Your task to perform on an android device: change your default location settings in chrome Image 0: 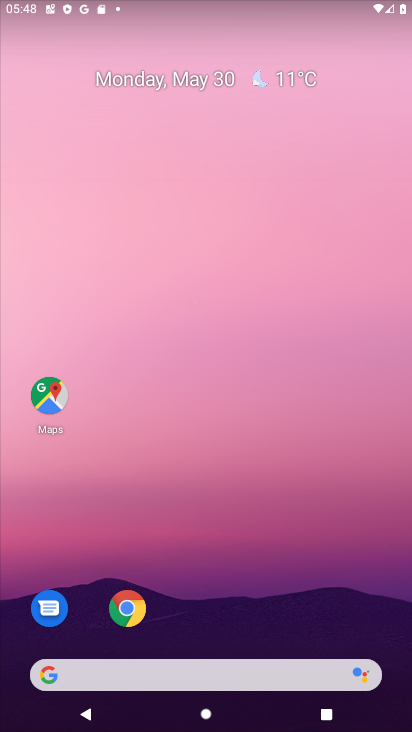
Step 0: click (136, 628)
Your task to perform on an android device: change your default location settings in chrome Image 1: 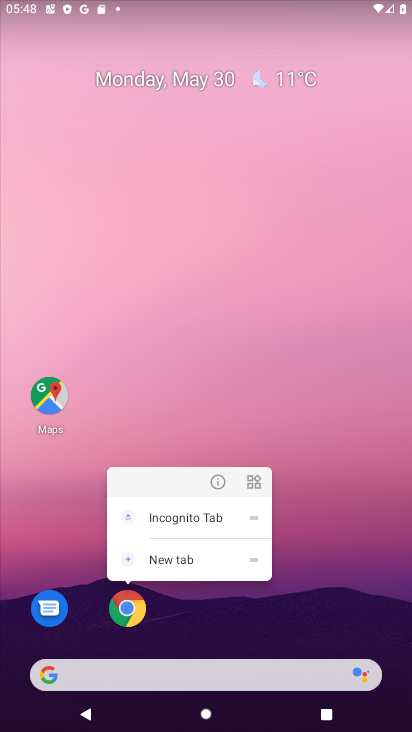
Step 1: click (128, 609)
Your task to perform on an android device: change your default location settings in chrome Image 2: 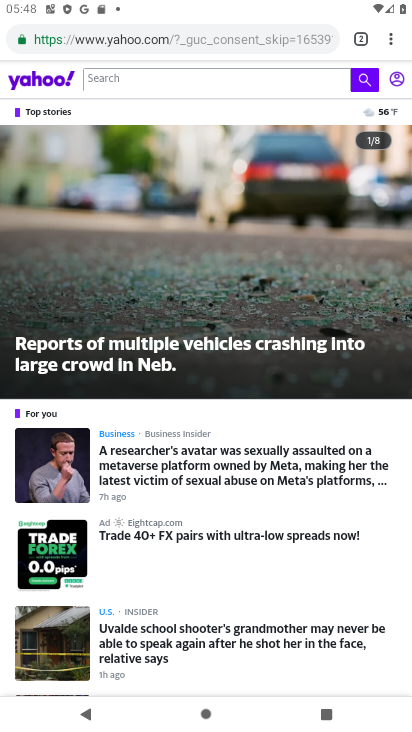
Step 2: click (398, 40)
Your task to perform on an android device: change your default location settings in chrome Image 3: 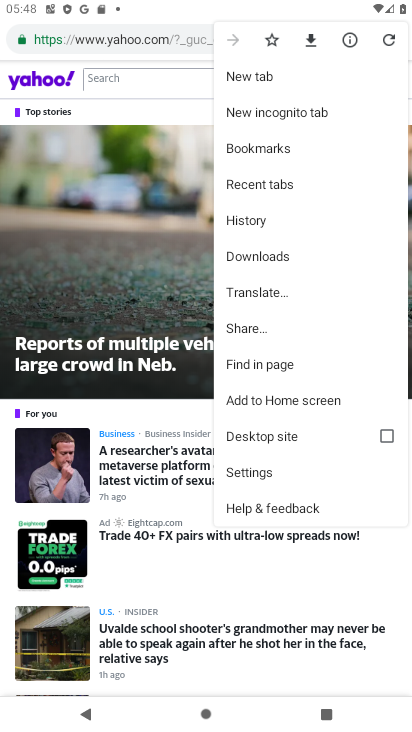
Step 3: click (265, 469)
Your task to perform on an android device: change your default location settings in chrome Image 4: 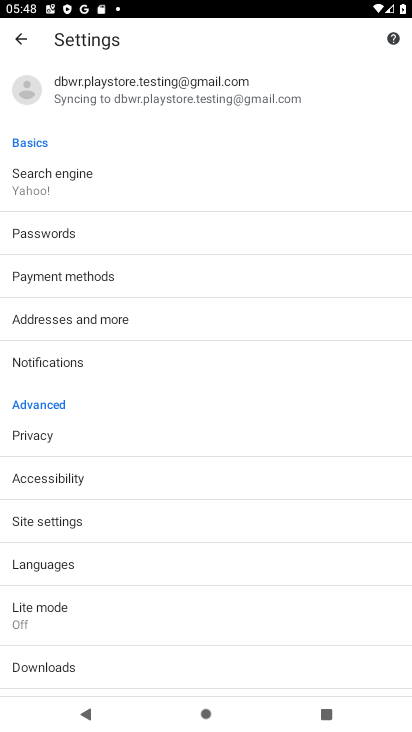
Step 4: click (45, 522)
Your task to perform on an android device: change your default location settings in chrome Image 5: 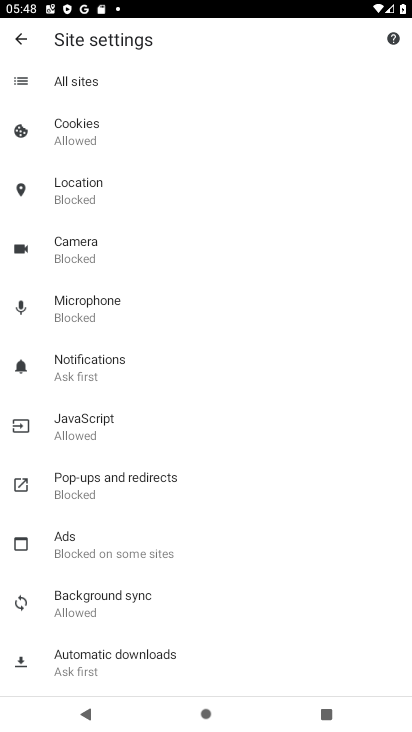
Step 5: click (105, 190)
Your task to perform on an android device: change your default location settings in chrome Image 6: 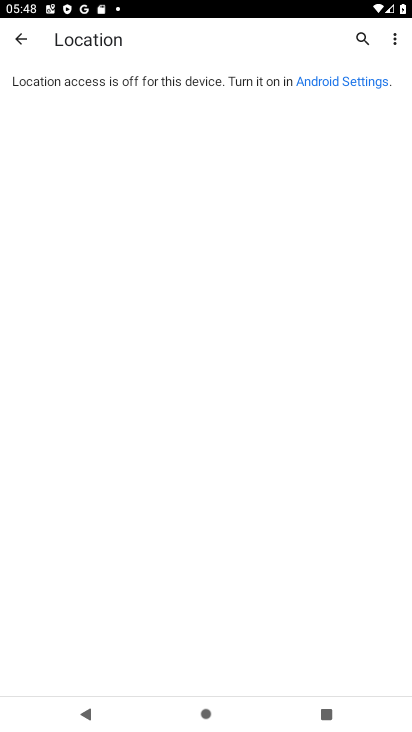
Step 6: drag from (277, 48) to (276, 402)
Your task to perform on an android device: change your default location settings in chrome Image 7: 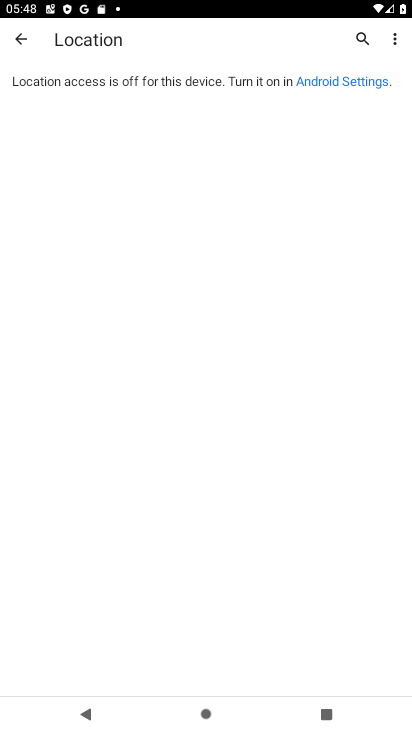
Step 7: click (359, 71)
Your task to perform on an android device: change your default location settings in chrome Image 8: 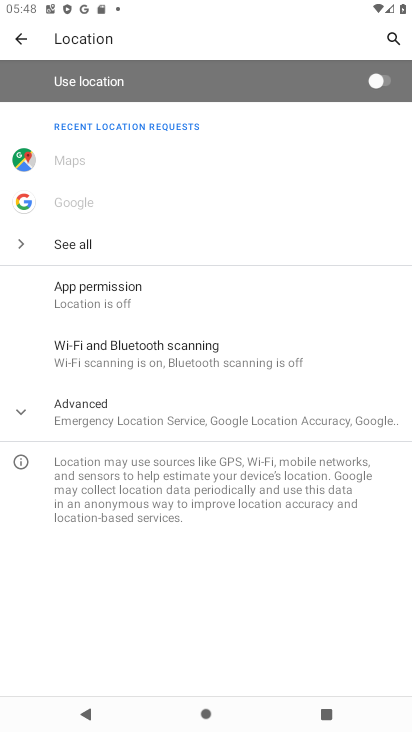
Step 8: click (382, 76)
Your task to perform on an android device: change your default location settings in chrome Image 9: 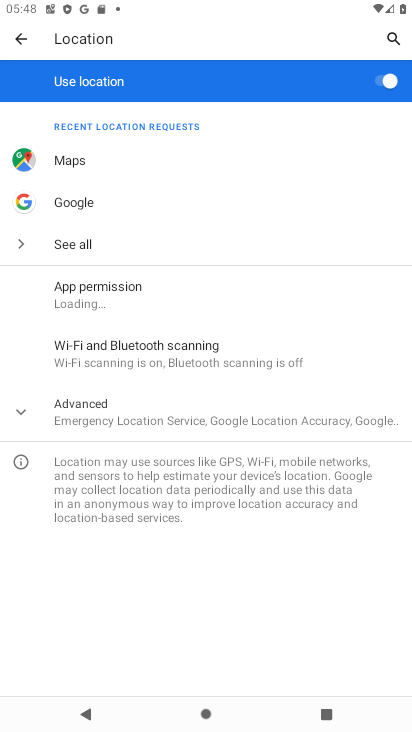
Step 9: task complete